Your task to perform on an android device: change the clock style Image 0: 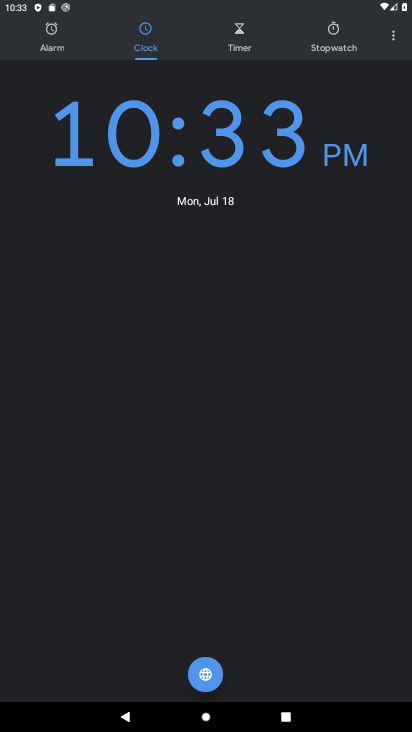
Step 0: press home button
Your task to perform on an android device: change the clock style Image 1: 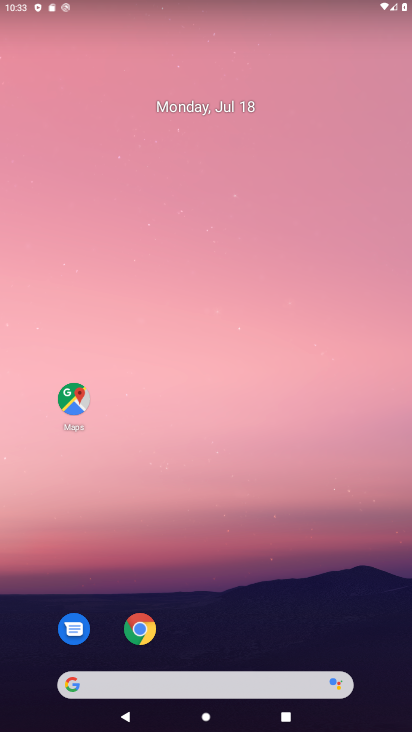
Step 1: drag from (383, 715) to (291, 176)
Your task to perform on an android device: change the clock style Image 2: 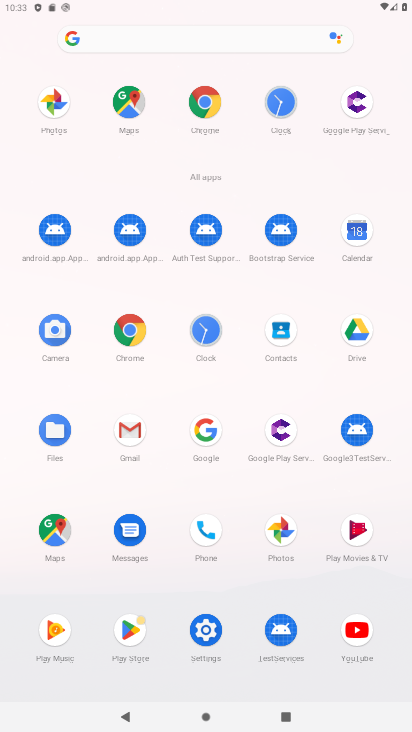
Step 2: click (210, 327)
Your task to perform on an android device: change the clock style Image 3: 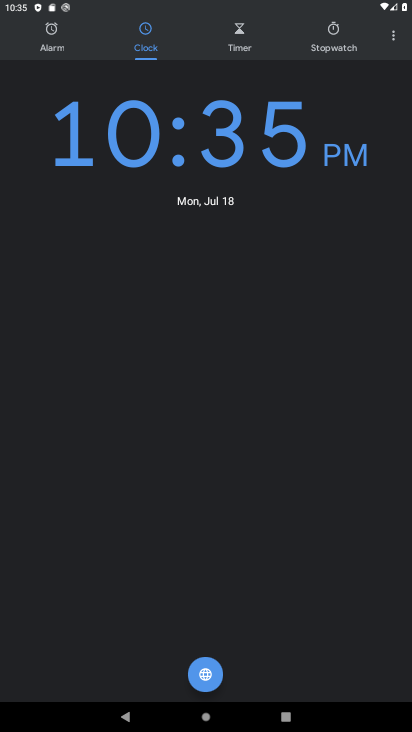
Step 3: click (391, 40)
Your task to perform on an android device: change the clock style Image 4: 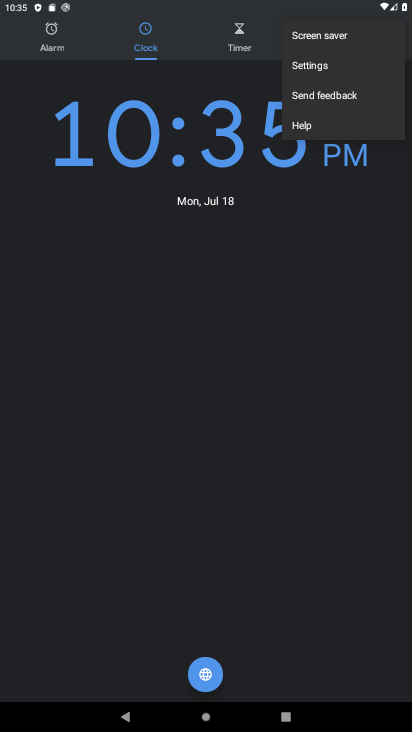
Step 4: click (320, 66)
Your task to perform on an android device: change the clock style Image 5: 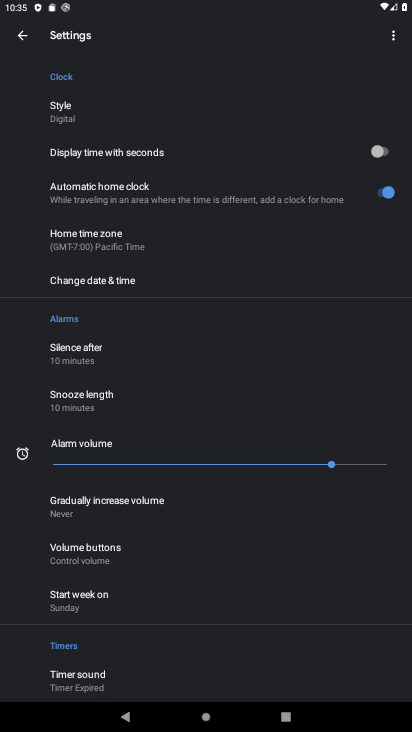
Step 5: click (67, 107)
Your task to perform on an android device: change the clock style Image 6: 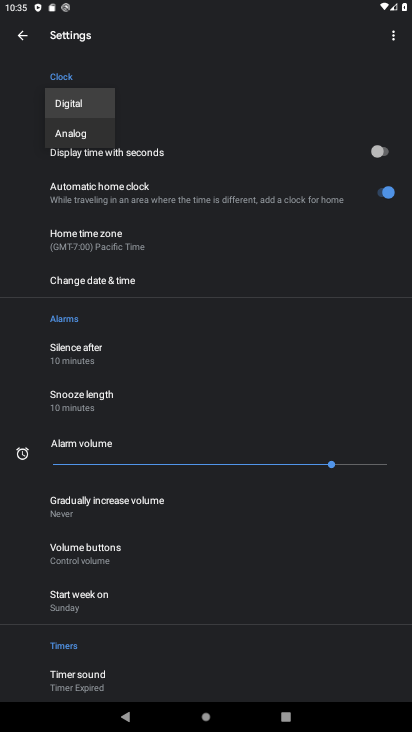
Step 6: click (66, 140)
Your task to perform on an android device: change the clock style Image 7: 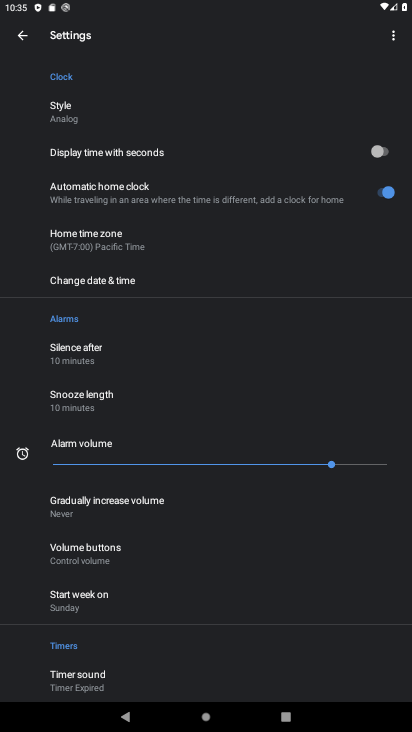
Step 7: task complete